Your task to perform on an android device: change the clock display to digital Image 0: 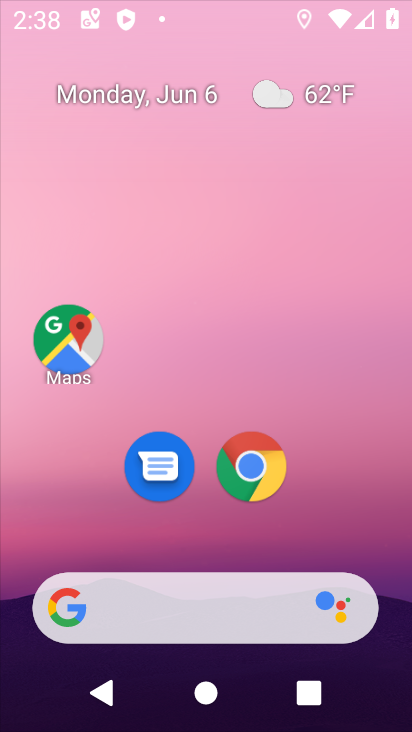
Step 0: drag from (208, 181) to (195, 83)
Your task to perform on an android device: change the clock display to digital Image 1: 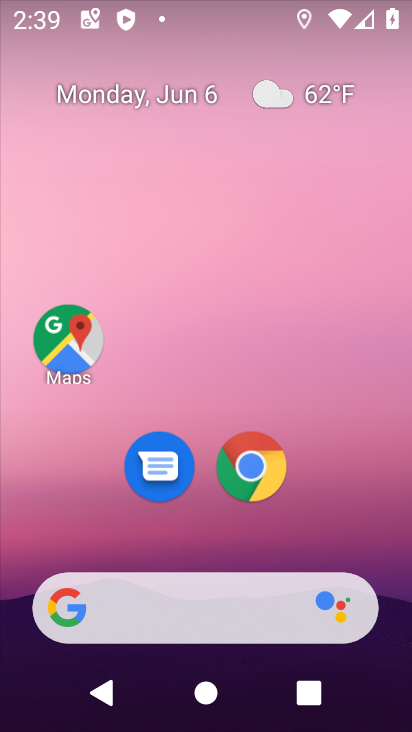
Step 1: drag from (243, 712) to (169, 338)
Your task to perform on an android device: change the clock display to digital Image 2: 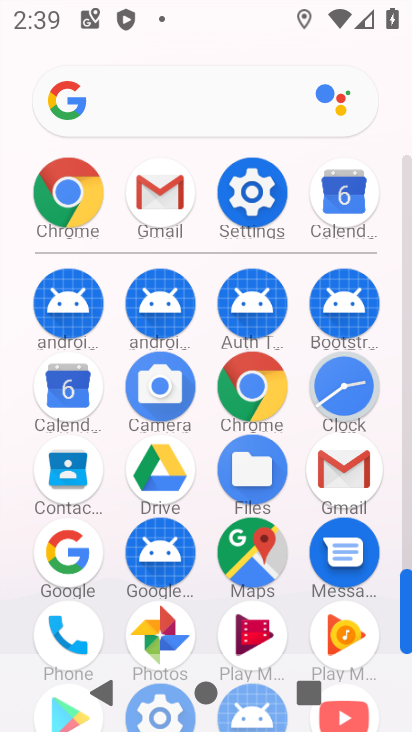
Step 2: click (354, 377)
Your task to perform on an android device: change the clock display to digital Image 3: 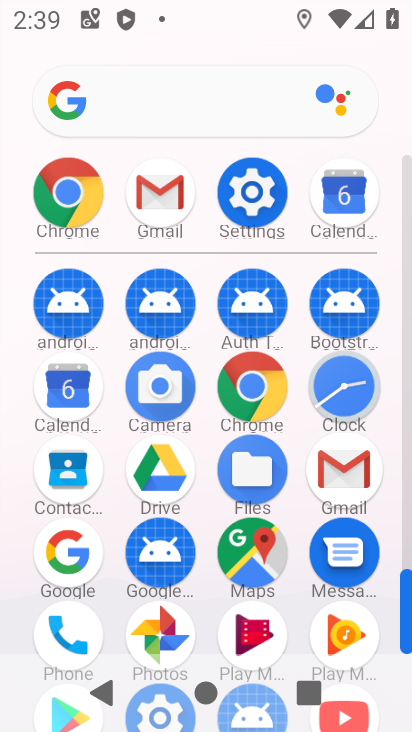
Step 3: click (353, 378)
Your task to perform on an android device: change the clock display to digital Image 4: 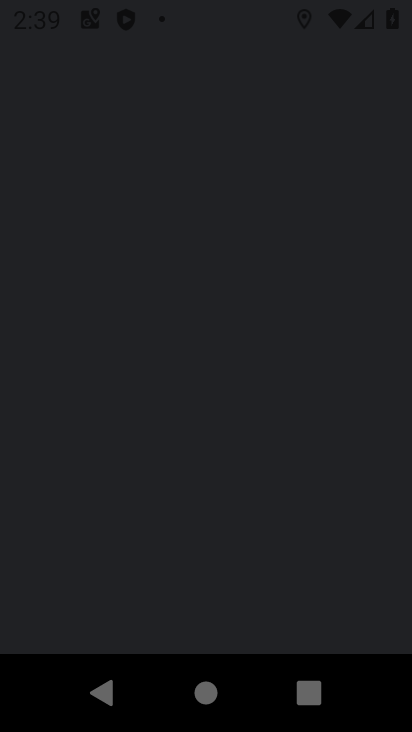
Step 4: click (353, 378)
Your task to perform on an android device: change the clock display to digital Image 5: 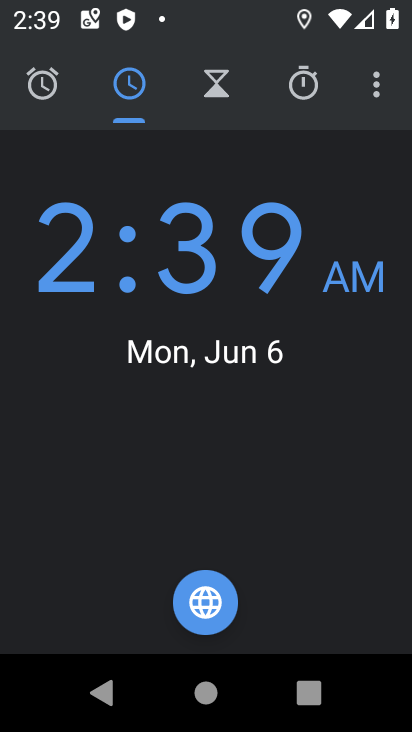
Step 5: click (387, 88)
Your task to perform on an android device: change the clock display to digital Image 6: 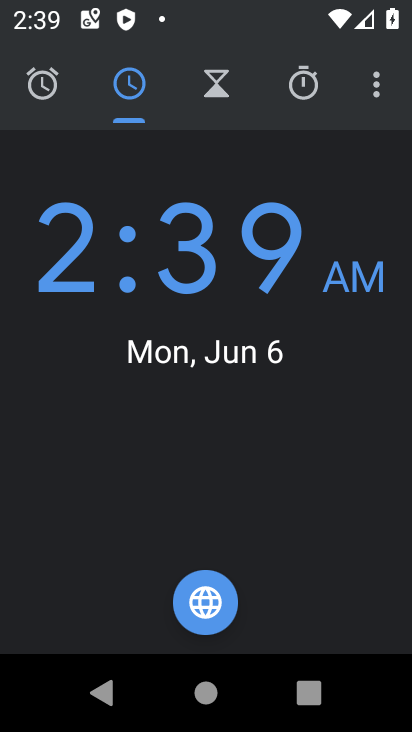
Step 6: click (382, 93)
Your task to perform on an android device: change the clock display to digital Image 7: 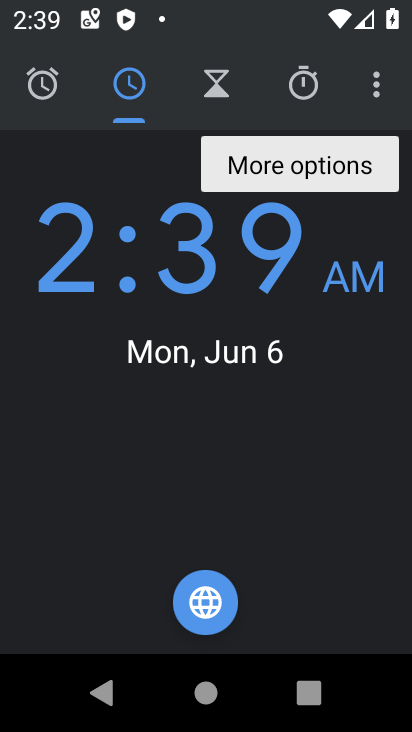
Step 7: click (379, 88)
Your task to perform on an android device: change the clock display to digital Image 8: 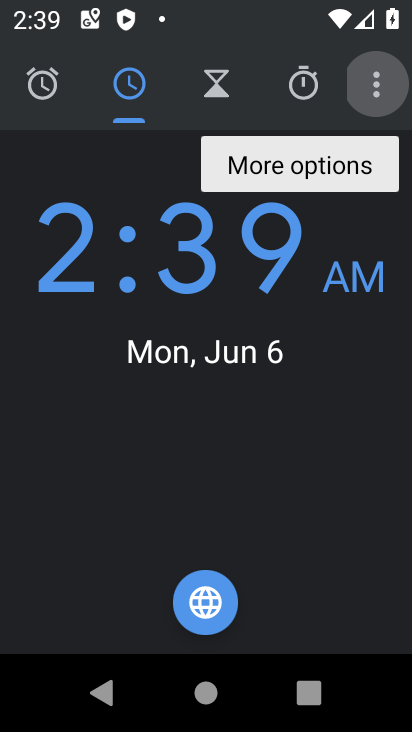
Step 8: click (367, 142)
Your task to perform on an android device: change the clock display to digital Image 9: 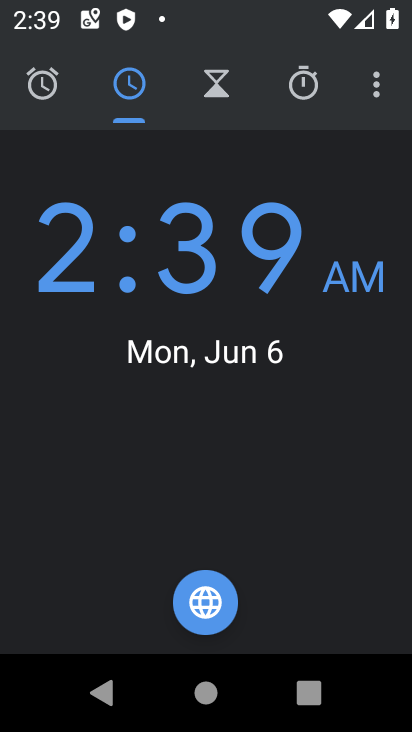
Step 9: click (344, 164)
Your task to perform on an android device: change the clock display to digital Image 10: 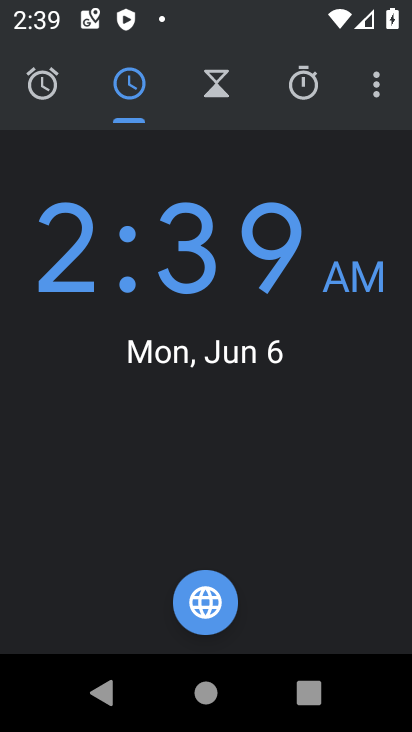
Step 10: click (377, 86)
Your task to perform on an android device: change the clock display to digital Image 11: 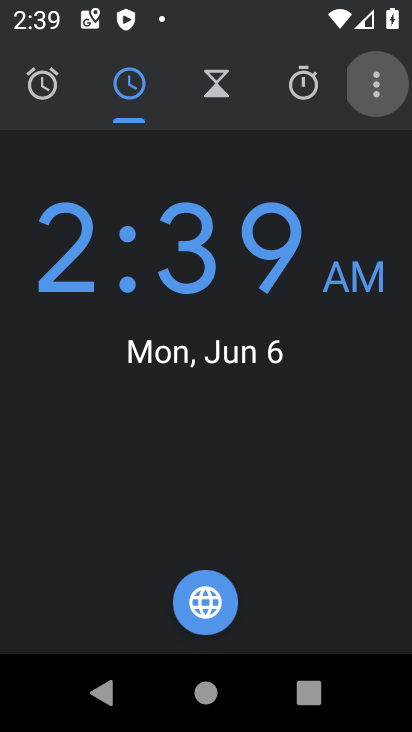
Step 11: click (374, 73)
Your task to perform on an android device: change the clock display to digital Image 12: 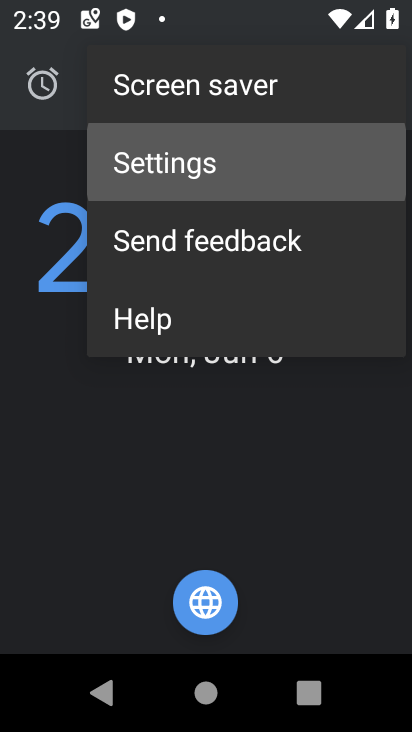
Step 12: click (373, 68)
Your task to perform on an android device: change the clock display to digital Image 13: 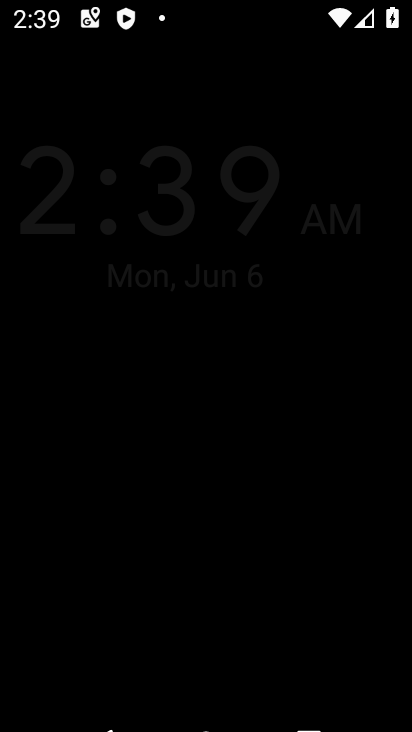
Step 13: click (158, 175)
Your task to perform on an android device: change the clock display to digital Image 14: 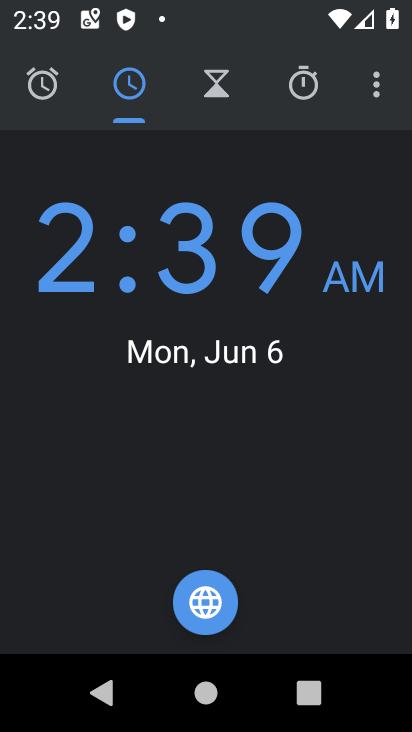
Step 14: click (372, 92)
Your task to perform on an android device: change the clock display to digital Image 15: 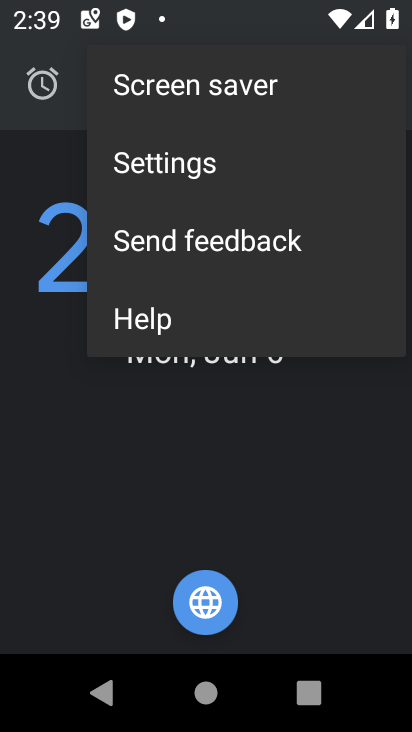
Step 15: click (179, 172)
Your task to perform on an android device: change the clock display to digital Image 16: 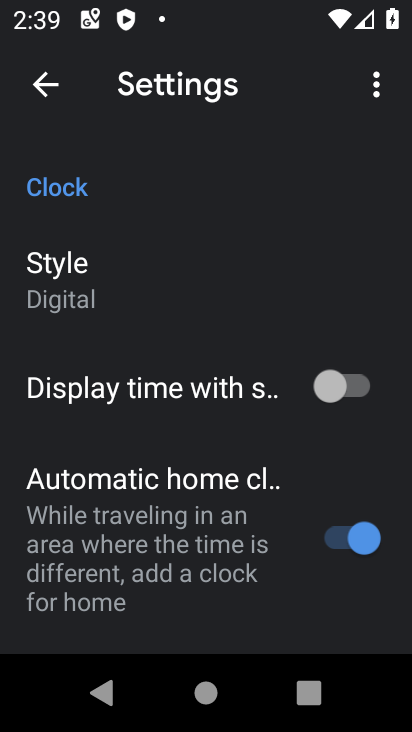
Step 16: task complete